Your task to perform on an android device: turn off picture-in-picture Image 0: 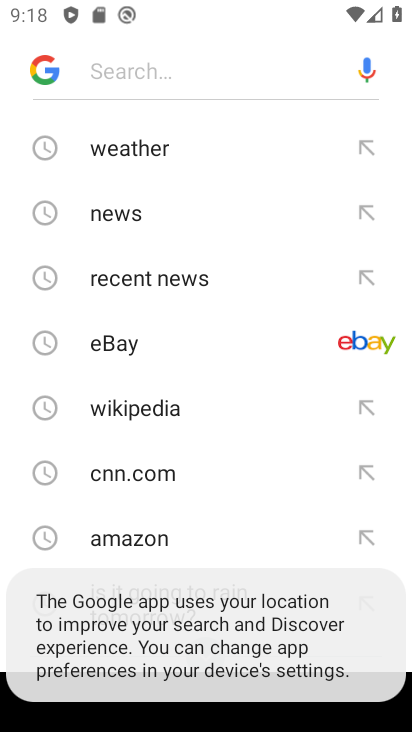
Step 0: press home button
Your task to perform on an android device: turn off picture-in-picture Image 1: 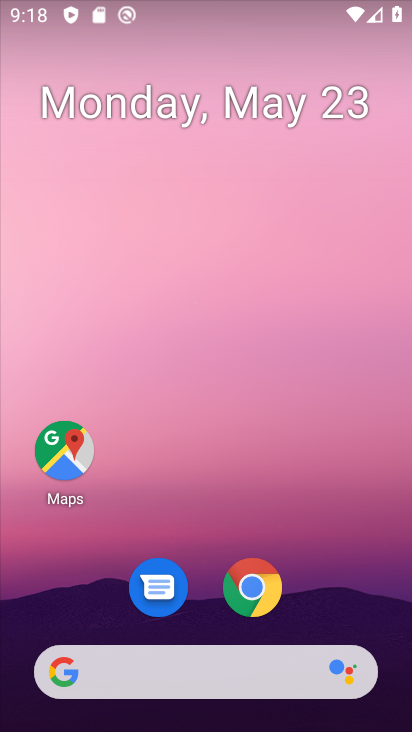
Step 1: click (258, 586)
Your task to perform on an android device: turn off picture-in-picture Image 2: 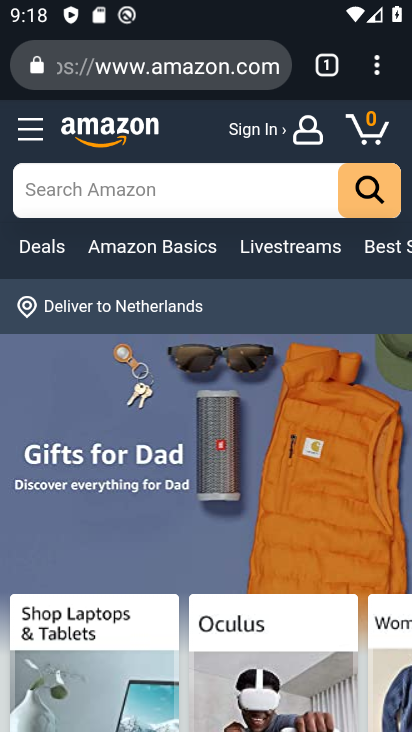
Step 2: press home button
Your task to perform on an android device: turn off picture-in-picture Image 3: 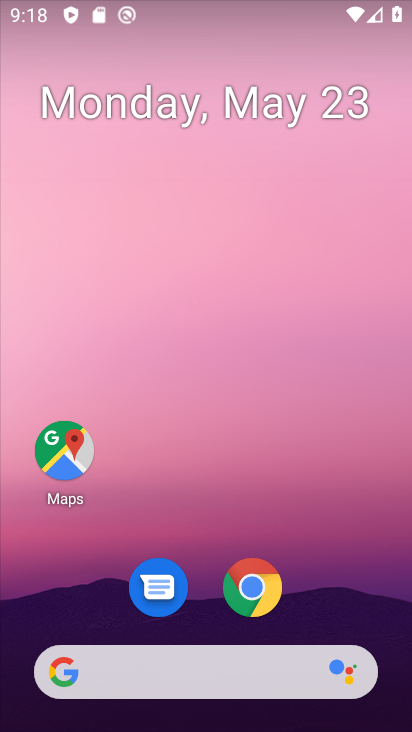
Step 3: click (261, 593)
Your task to perform on an android device: turn off picture-in-picture Image 4: 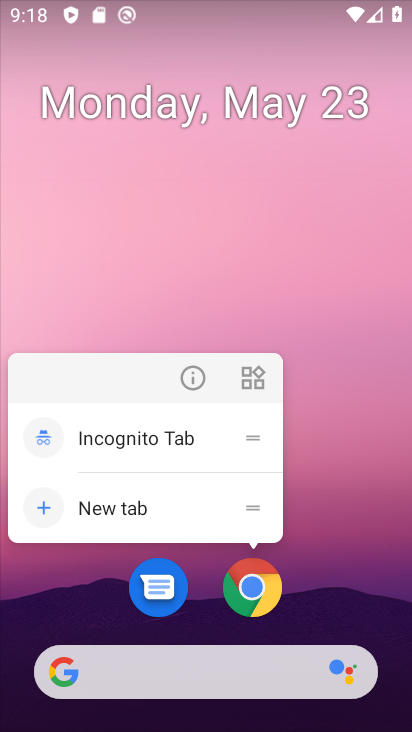
Step 4: click (190, 382)
Your task to perform on an android device: turn off picture-in-picture Image 5: 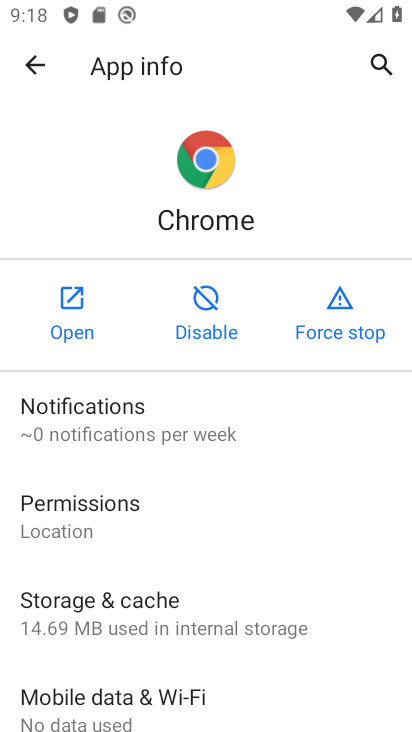
Step 5: drag from (207, 611) to (153, 213)
Your task to perform on an android device: turn off picture-in-picture Image 6: 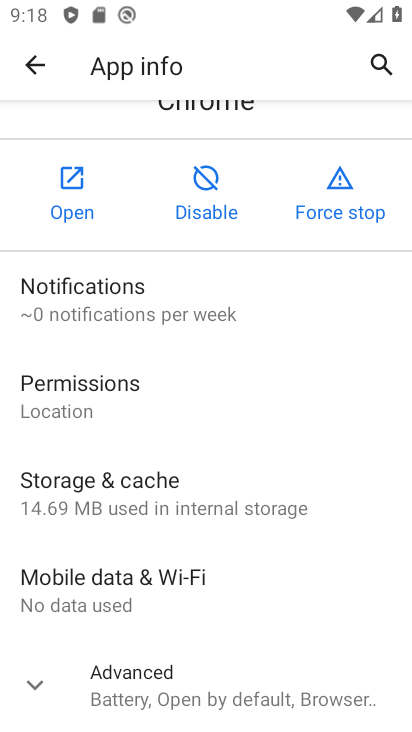
Step 6: click (155, 691)
Your task to perform on an android device: turn off picture-in-picture Image 7: 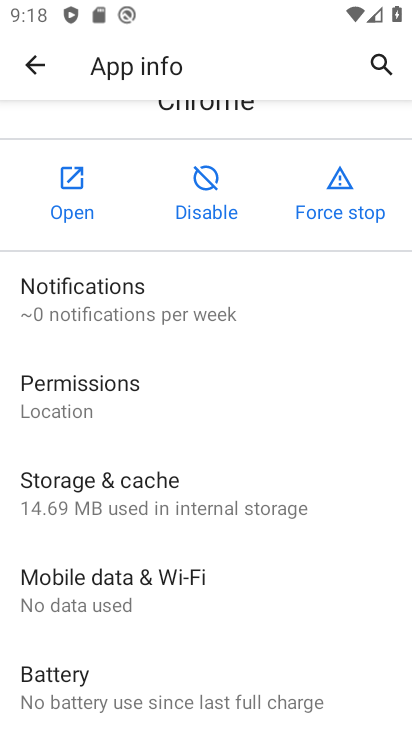
Step 7: drag from (154, 683) to (77, 287)
Your task to perform on an android device: turn off picture-in-picture Image 8: 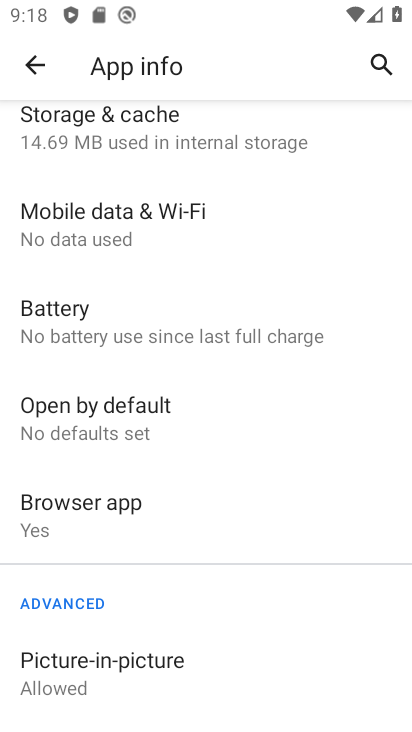
Step 8: click (80, 660)
Your task to perform on an android device: turn off picture-in-picture Image 9: 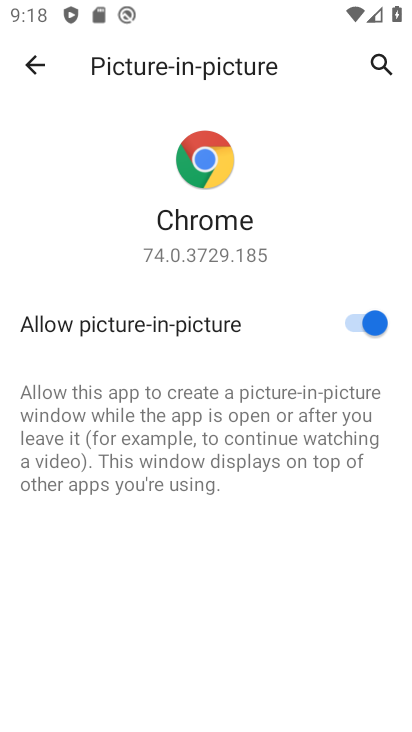
Step 9: click (348, 321)
Your task to perform on an android device: turn off picture-in-picture Image 10: 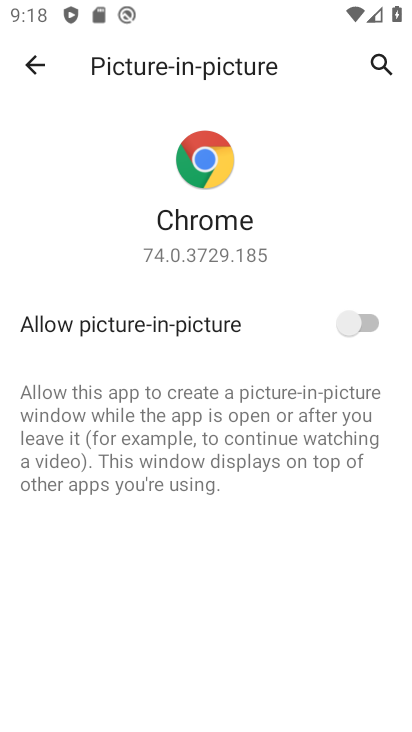
Step 10: task complete